Your task to perform on an android device: toggle show notifications on the lock screen Image 0: 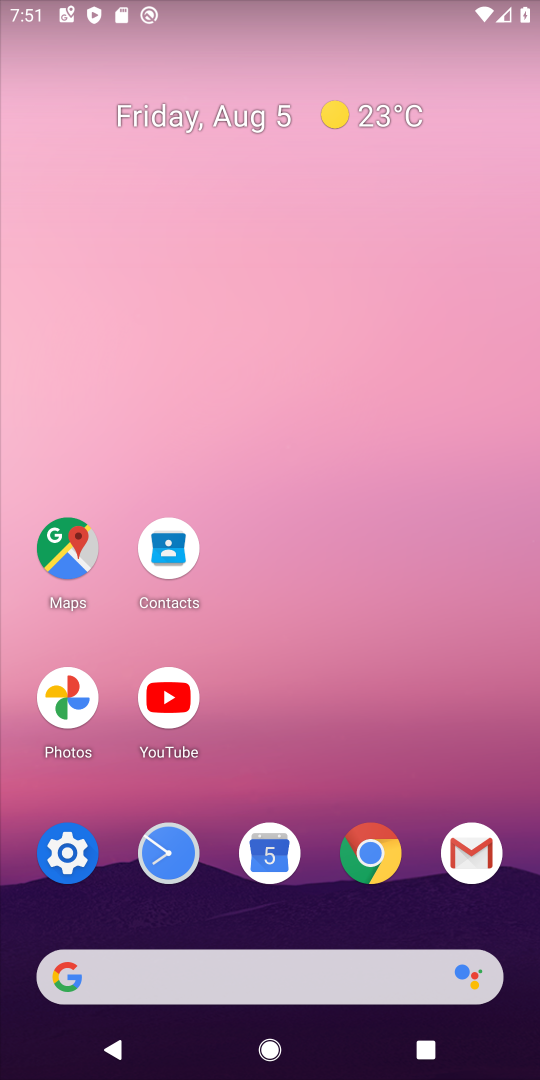
Step 0: click (67, 853)
Your task to perform on an android device: toggle show notifications on the lock screen Image 1: 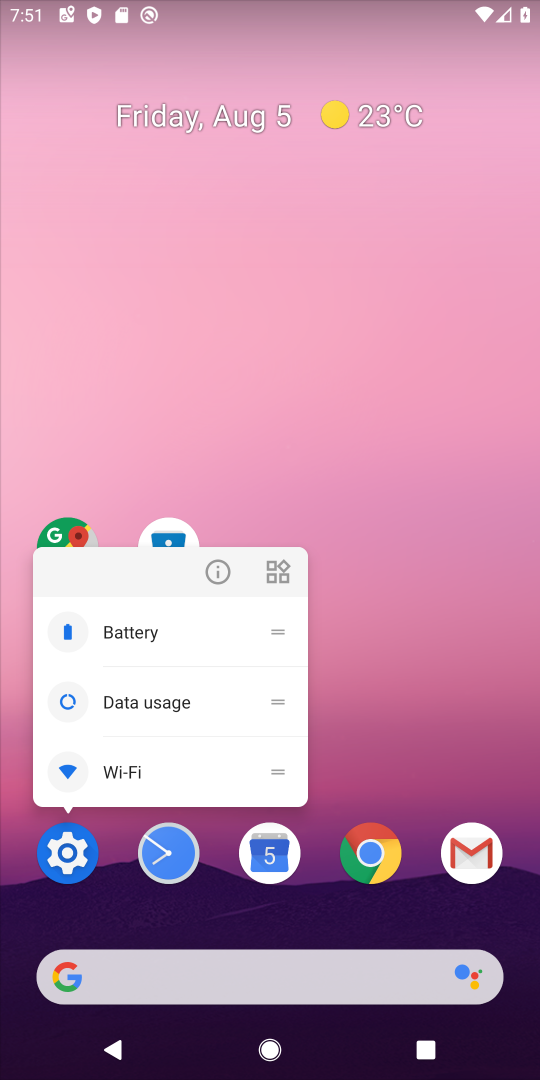
Step 1: click (68, 863)
Your task to perform on an android device: toggle show notifications on the lock screen Image 2: 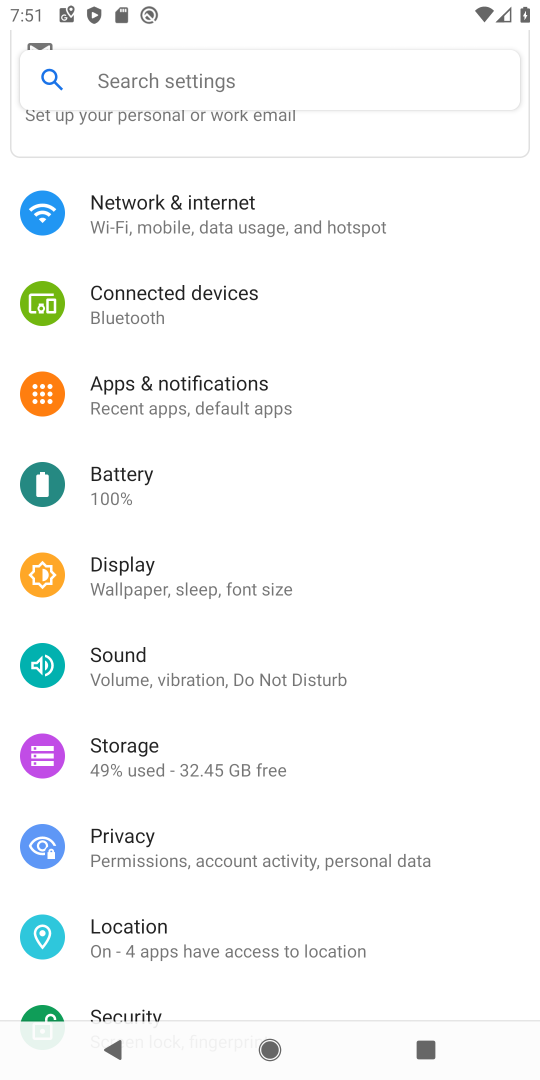
Step 2: click (223, 375)
Your task to perform on an android device: toggle show notifications on the lock screen Image 3: 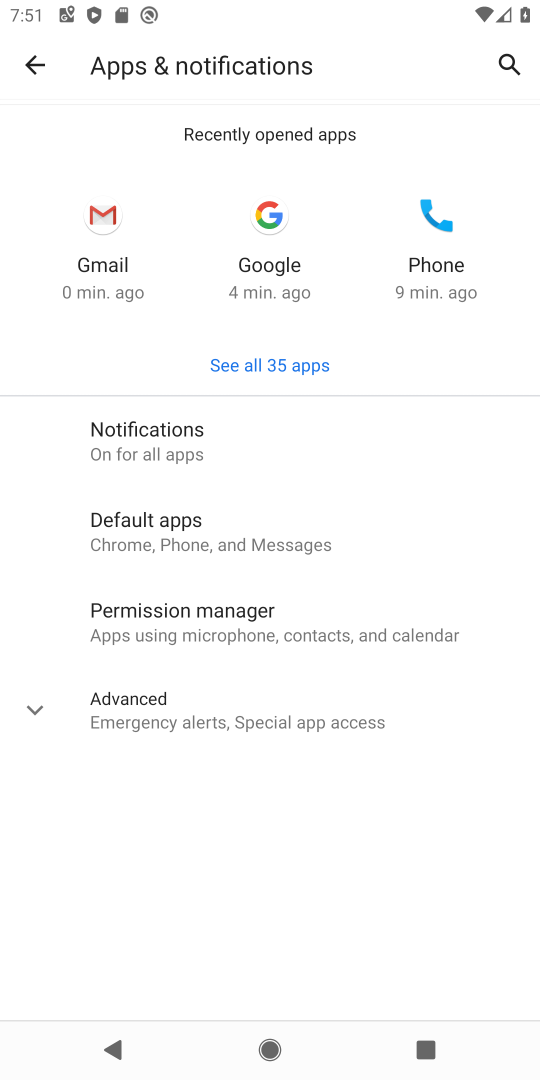
Step 3: click (159, 425)
Your task to perform on an android device: toggle show notifications on the lock screen Image 4: 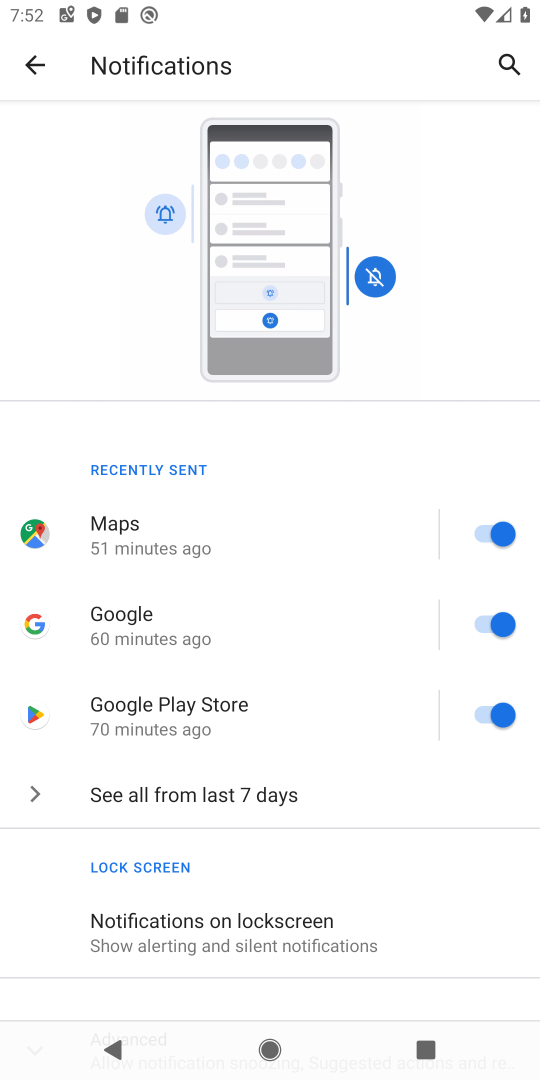
Step 4: click (264, 923)
Your task to perform on an android device: toggle show notifications on the lock screen Image 5: 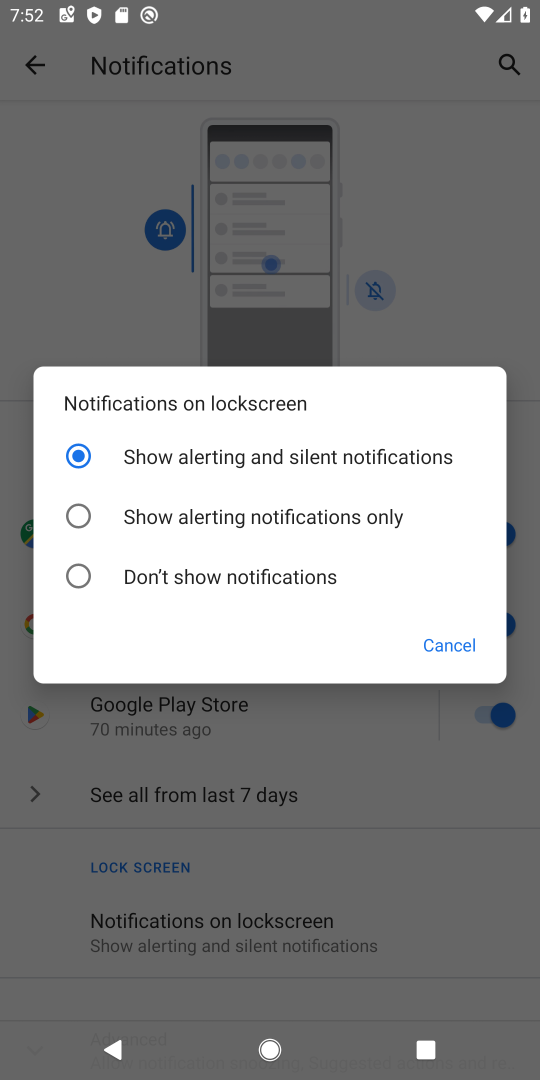
Step 5: click (78, 570)
Your task to perform on an android device: toggle show notifications on the lock screen Image 6: 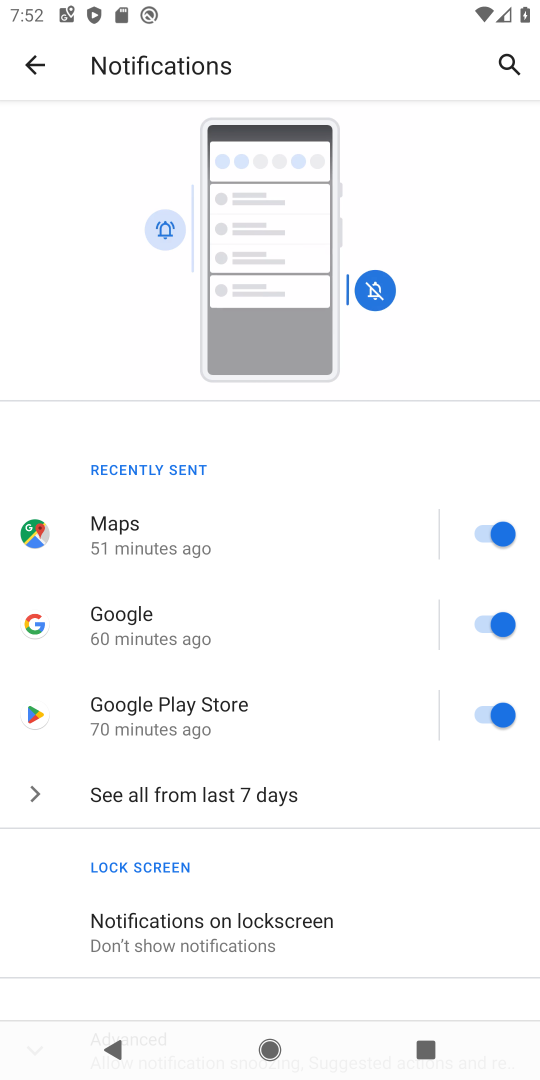
Step 6: task complete